Your task to perform on an android device: Open Google Chrome Image 0: 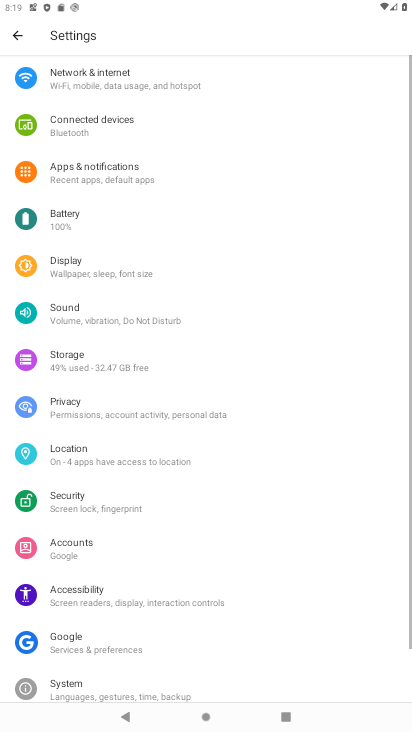
Step 0: press home button
Your task to perform on an android device: Open Google Chrome Image 1: 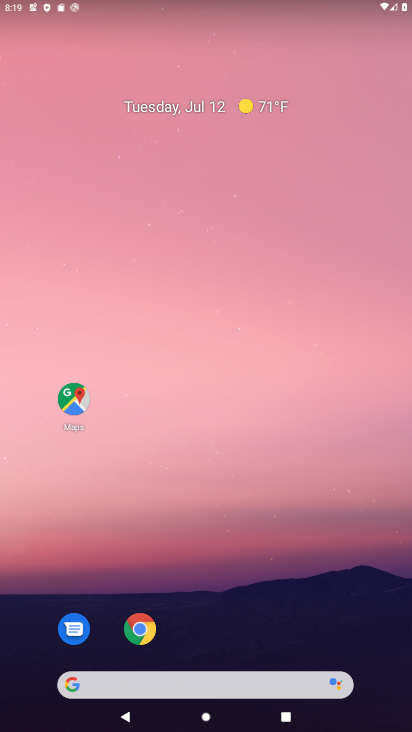
Step 1: click (137, 630)
Your task to perform on an android device: Open Google Chrome Image 2: 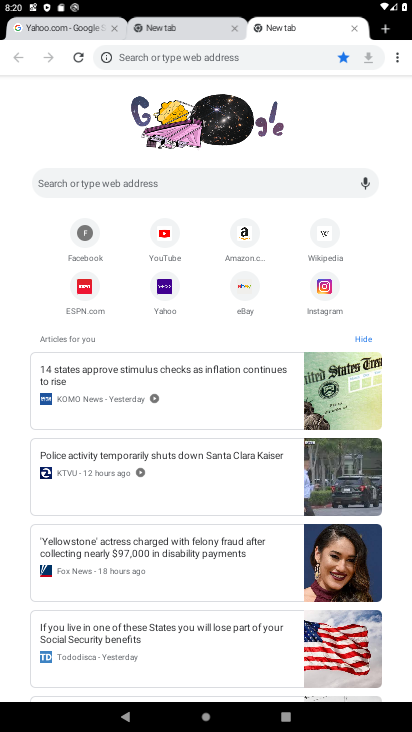
Step 2: task complete